Your task to perform on an android device: refresh tabs in the chrome app Image 0: 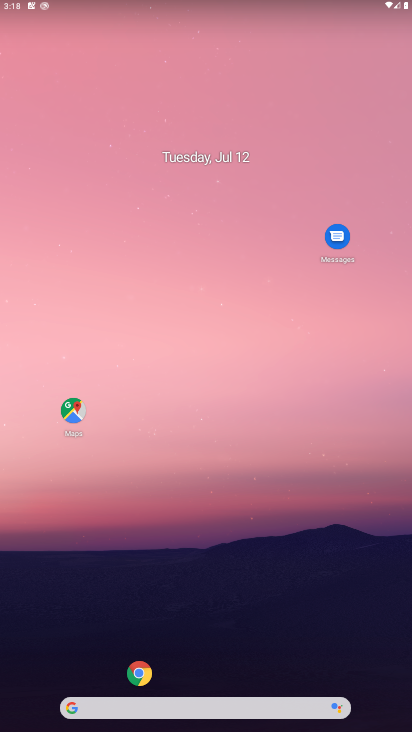
Step 0: click (141, 670)
Your task to perform on an android device: refresh tabs in the chrome app Image 1: 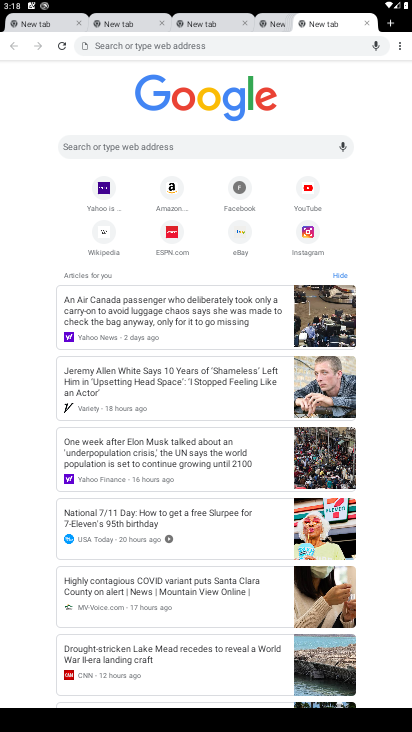
Step 1: click (56, 45)
Your task to perform on an android device: refresh tabs in the chrome app Image 2: 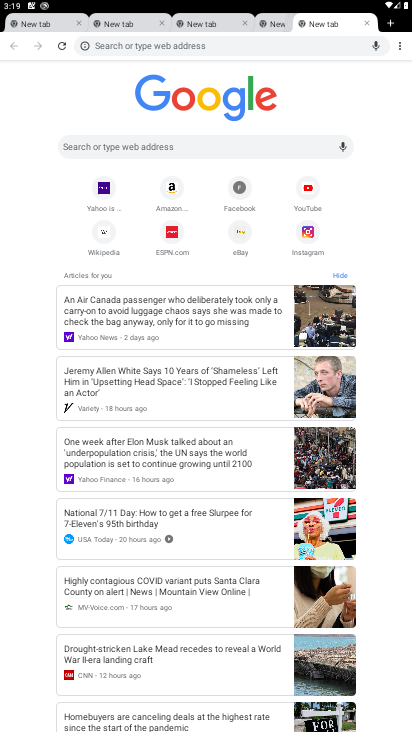
Step 2: task complete